Your task to perform on an android device: Open Google Chrome and click the shortcut for Amazon.com Image 0: 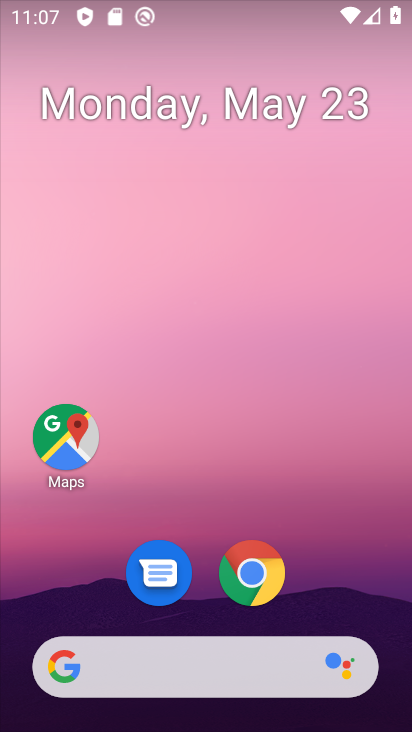
Step 0: drag from (369, 612) to (383, 210)
Your task to perform on an android device: Open Google Chrome and click the shortcut for Amazon.com Image 1: 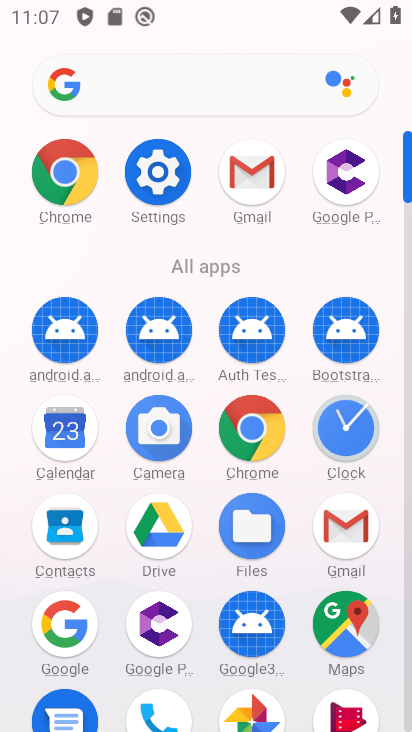
Step 1: click (261, 451)
Your task to perform on an android device: Open Google Chrome and click the shortcut for Amazon.com Image 2: 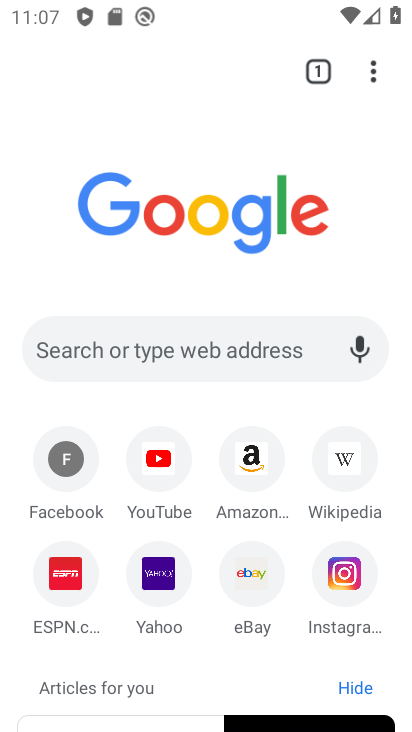
Step 2: click (260, 468)
Your task to perform on an android device: Open Google Chrome and click the shortcut for Amazon.com Image 3: 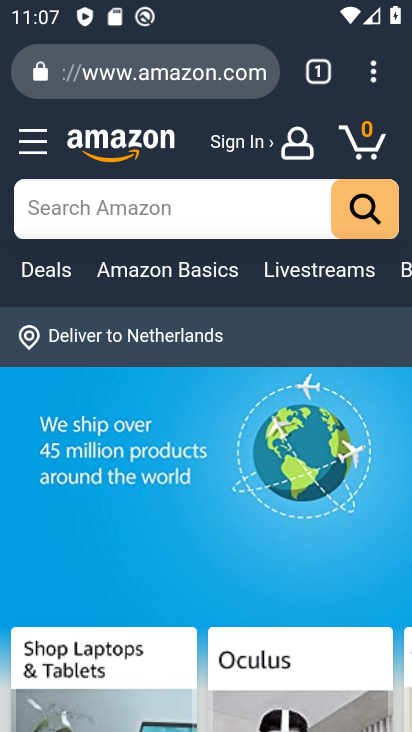
Step 3: task complete